Your task to perform on an android device: Open Youtube and go to "Your channel" Image 0: 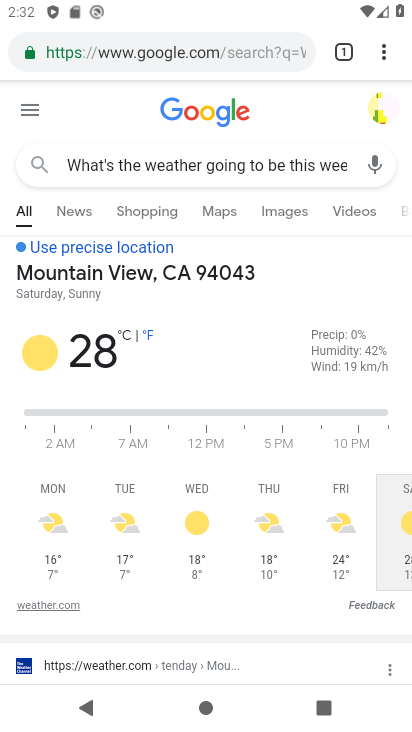
Step 0: press back button
Your task to perform on an android device: Open Youtube and go to "Your channel" Image 1: 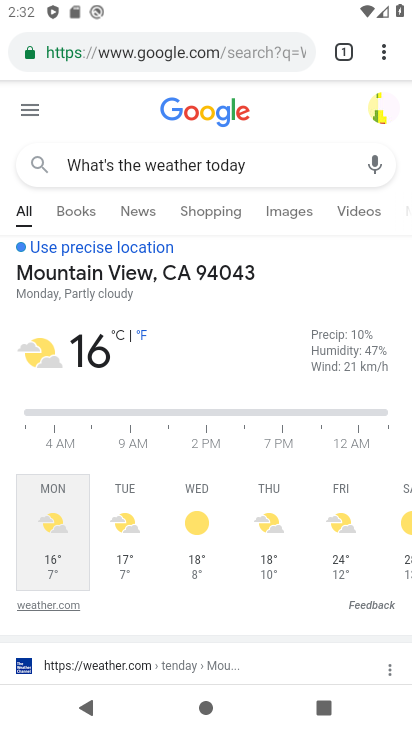
Step 1: press back button
Your task to perform on an android device: Open Youtube and go to "Your channel" Image 2: 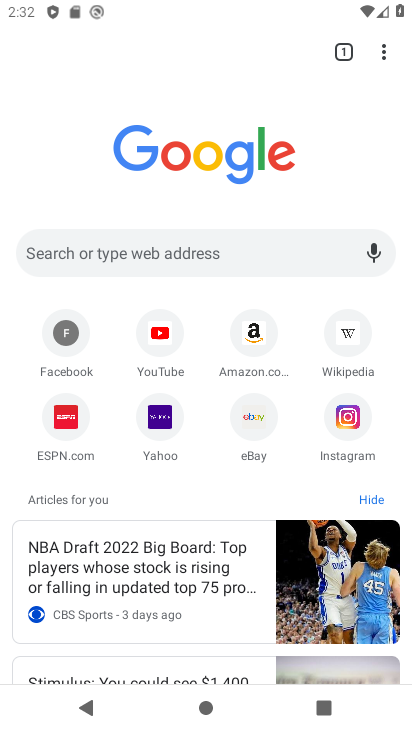
Step 2: press back button
Your task to perform on an android device: Open Youtube and go to "Your channel" Image 3: 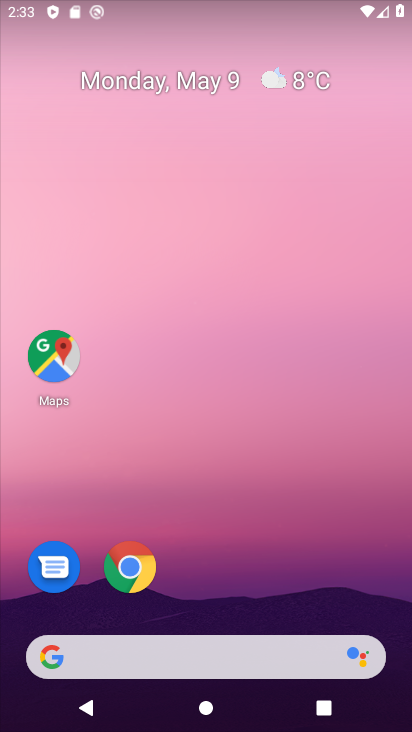
Step 3: drag from (260, 575) to (258, 34)
Your task to perform on an android device: Open Youtube and go to "Your channel" Image 4: 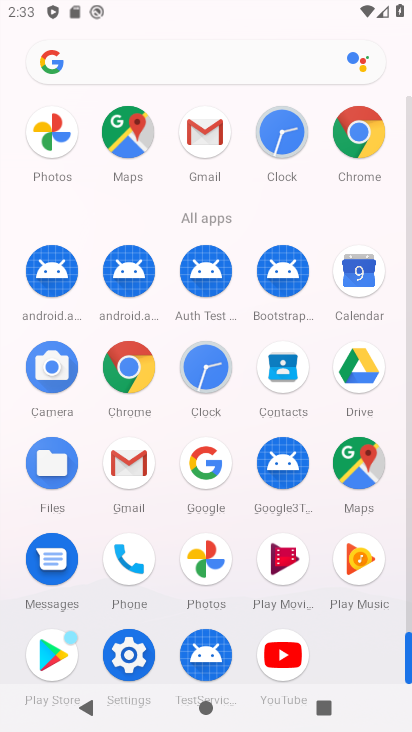
Step 4: click (276, 655)
Your task to perform on an android device: Open Youtube and go to "Your channel" Image 5: 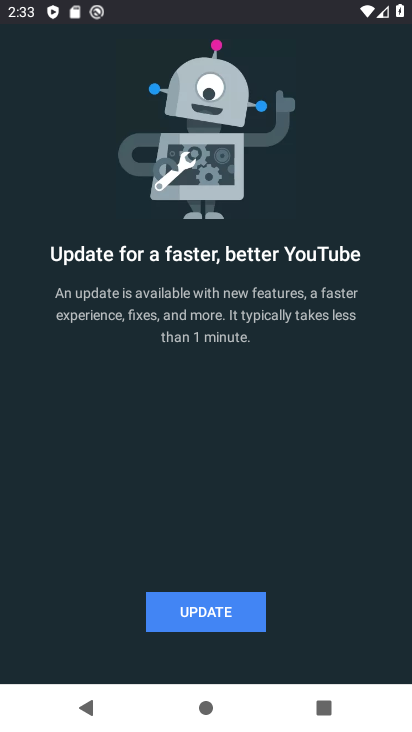
Step 5: press back button
Your task to perform on an android device: Open Youtube and go to "Your channel" Image 6: 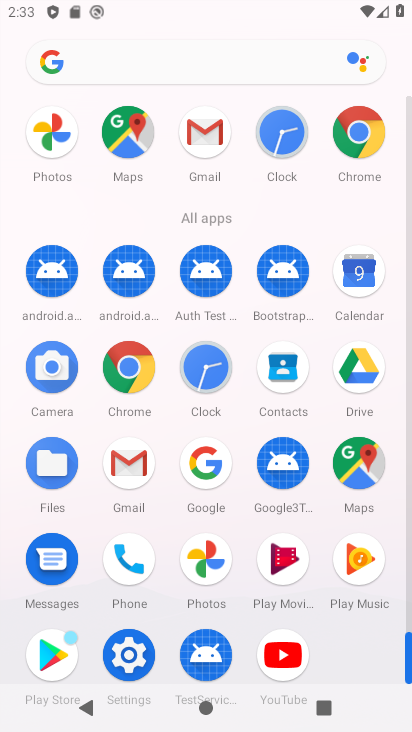
Step 6: click (280, 656)
Your task to perform on an android device: Open Youtube and go to "Your channel" Image 7: 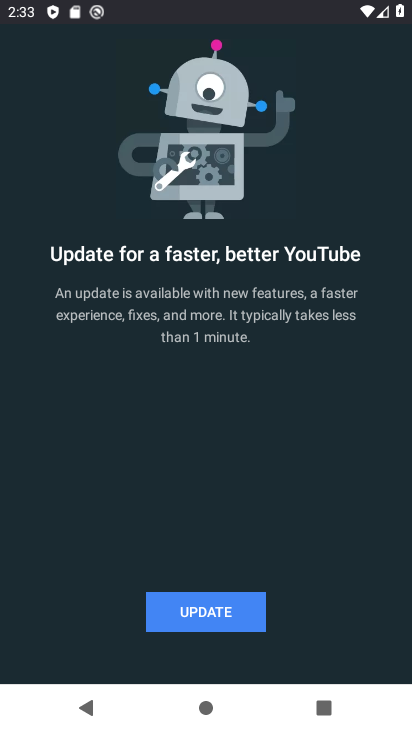
Step 7: click (245, 601)
Your task to perform on an android device: Open Youtube and go to "Your channel" Image 8: 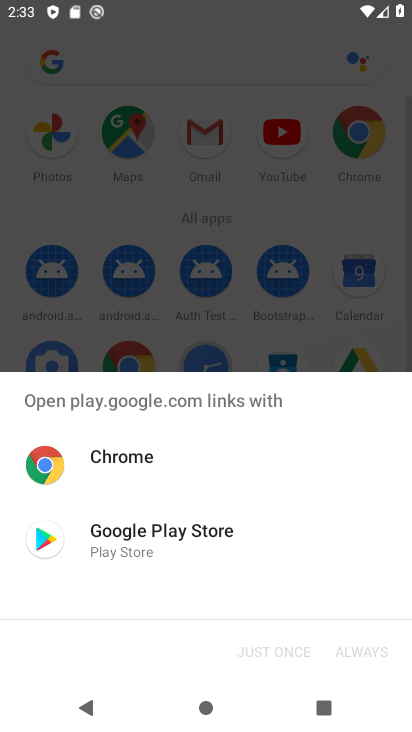
Step 8: click (226, 614)
Your task to perform on an android device: Open Youtube and go to "Your channel" Image 9: 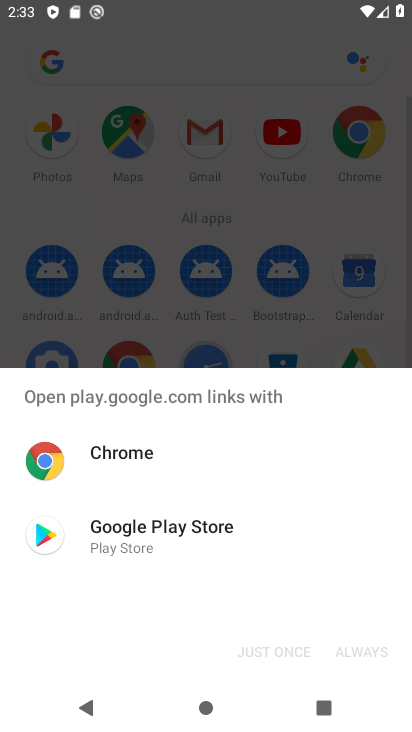
Step 9: click (189, 556)
Your task to perform on an android device: Open Youtube and go to "Your channel" Image 10: 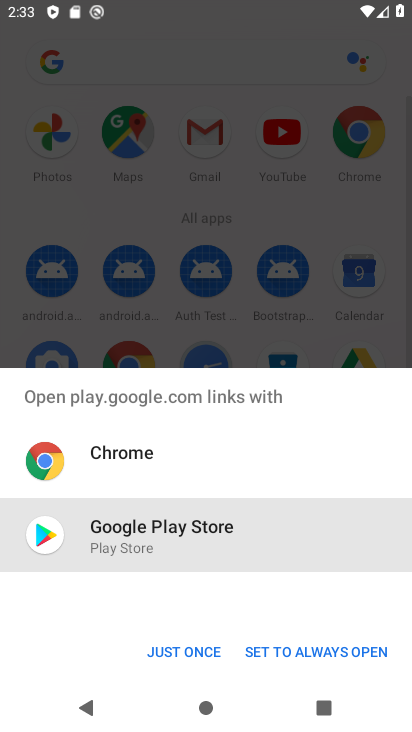
Step 10: click (161, 652)
Your task to perform on an android device: Open Youtube and go to "Your channel" Image 11: 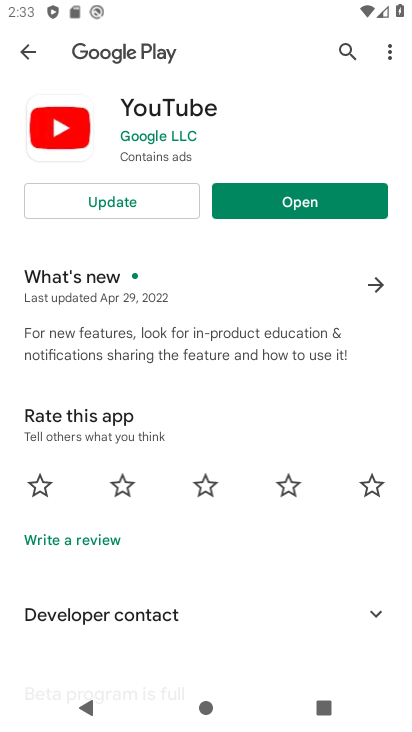
Step 11: click (93, 201)
Your task to perform on an android device: Open Youtube and go to "Your channel" Image 12: 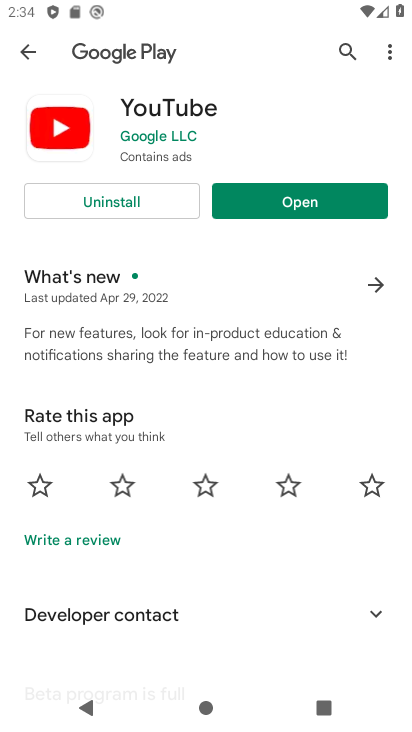
Step 12: click (297, 204)
Your task to perform on an android device: Open Youtube and go to "Your channel" Image 13: 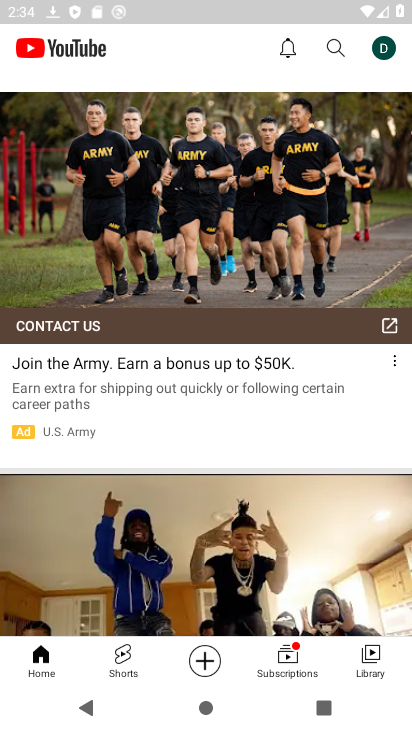
Step 13: drag from (223, 510) to (267, 167)
Your task to perform on an android device: Open Youtube and go to "Your channel" Image 14: 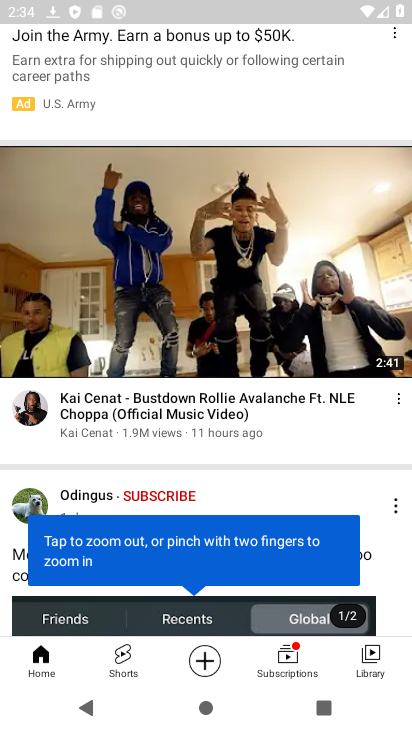
Step 14: click (271, 676)
Your task to perform on an android device: Open Youtube and go to "Your channel" Image 15: 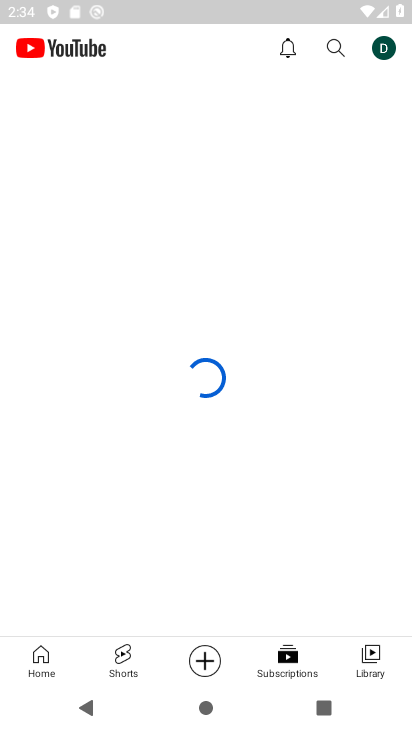
Step 15: click (292, 665)
Your task to perform on an android device: Open Youtube and go to "Your channel" Image 16: 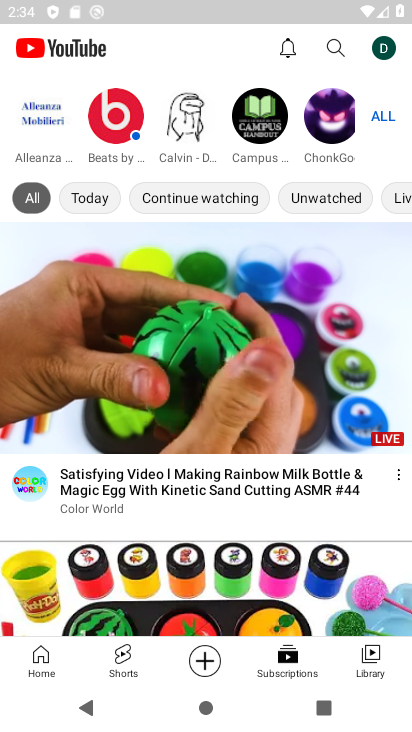
Step 16: drag from (252, 574) to (239, 171)
Your task to perform on an android device: Open Youtube and go to "Your channel" Image 17: 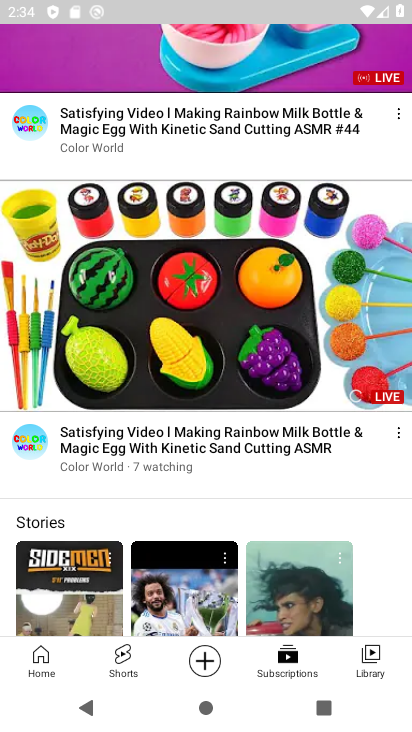
Step 17: drag from (236, 547) to (241, 272)
Your task to perform on an android device: Open Youtube and go to "Your channel" Image 18: 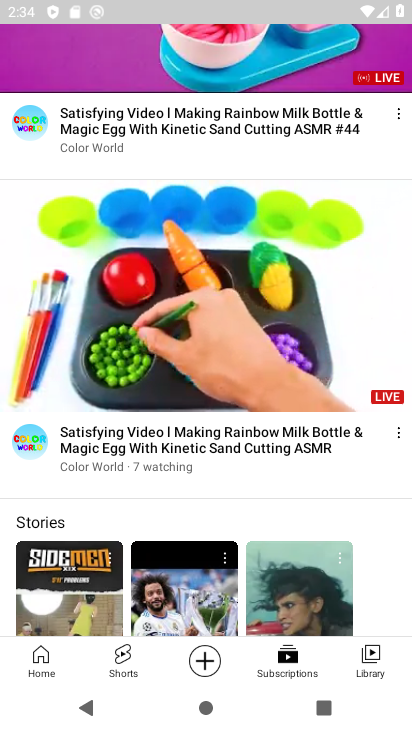
Step 18: drag from (213, 536) to (250, 149)
Your task to perform on an android device: Open Youtube and go to "Your channel" Image 19: 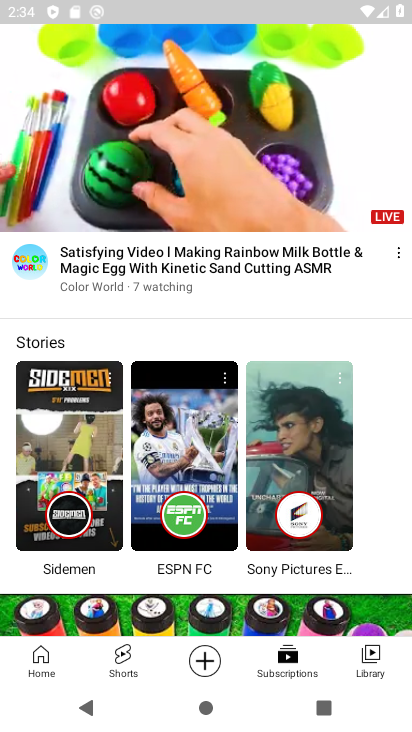
Step 19: drag from (196, 504) to (259, 142)
Your task to perform on an android device: Open Youtube and go to "Your channel" Image 20: 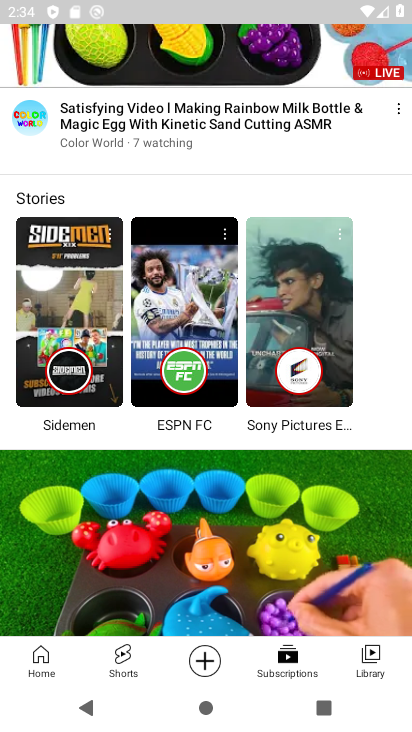
Step 20: drag from (191, 584) to (249, 133)
Your task to perform on an android device: Open Youtube and go to "Your channel" Image 21: 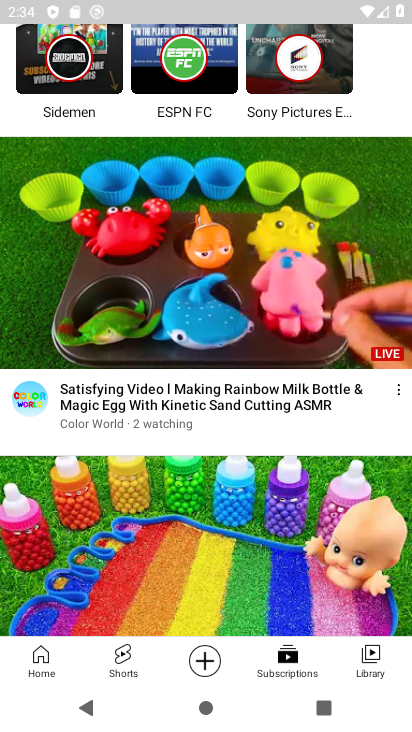
Step 21: drag from (266, 572) to (332, 142)
Your task to perform on an android device: Open Youtube and go to "Your channel" Image 22: 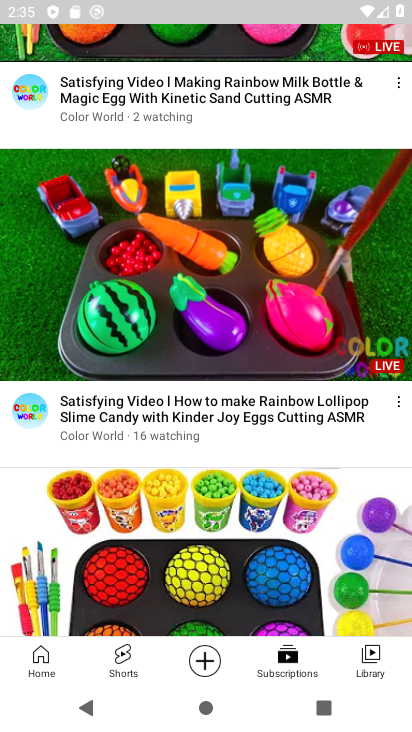
Step 22: drag from (321, 153) to (291, 511)
Your task to perform on an android device: Open Youtube and go to "Your channel" Image 23: 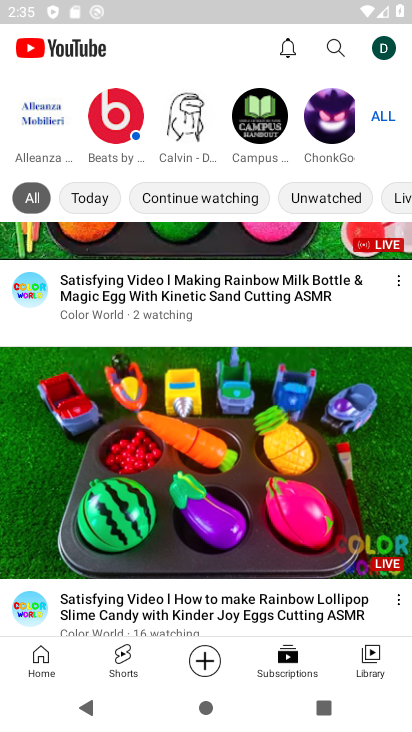
Step 23: click (369, 667)
Your task to perform on an android device: Open Youtube and go to "Your channel" Image 24: 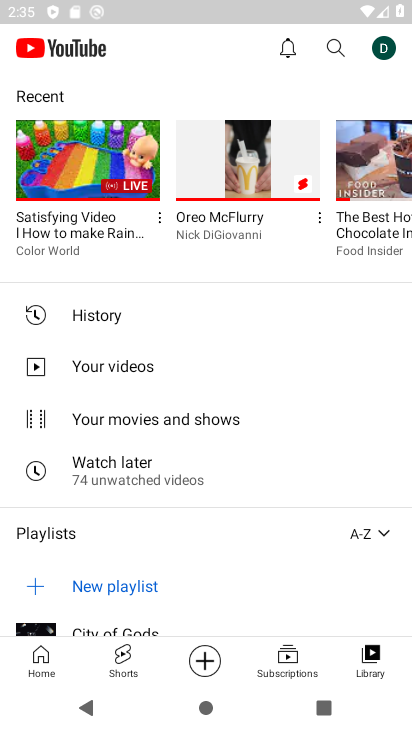
Step 24: click (154, 369)
Your task to perform on an android device: Open Youtube and go to "Your channel" Image 25: 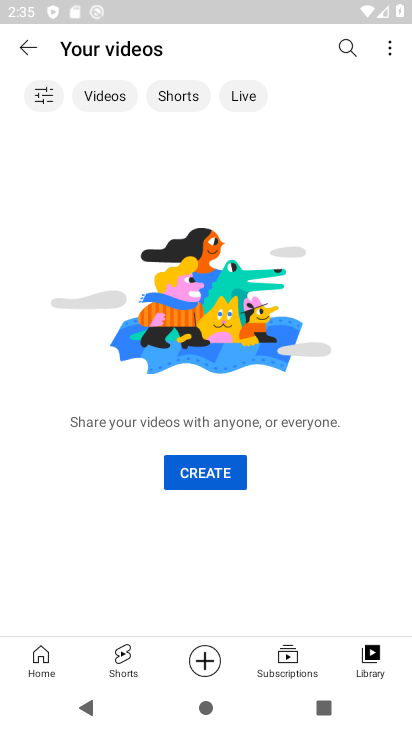
Step 25: task complete